Your task to perform on an android device: Check the weather Image 0: 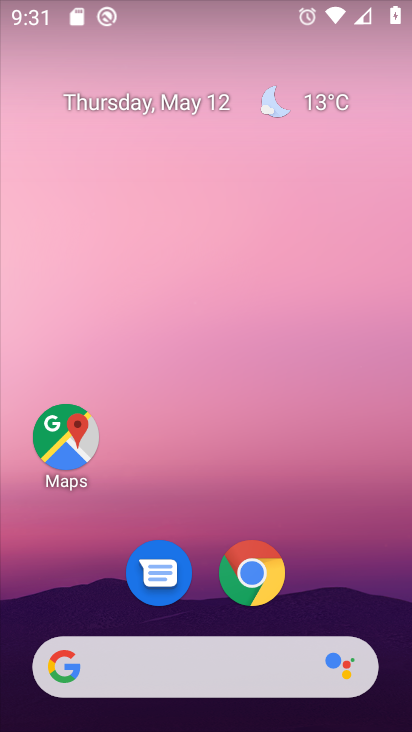
Step 0: click (306, 106)
Your task to perform on an android device: Check the weather Image 1: 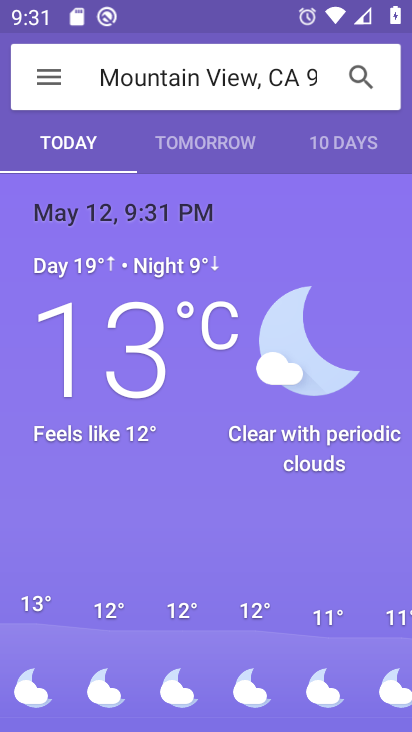
Step 1: task complete